Your task to perform on an android device: toggle translation in the chrome app Image 0: 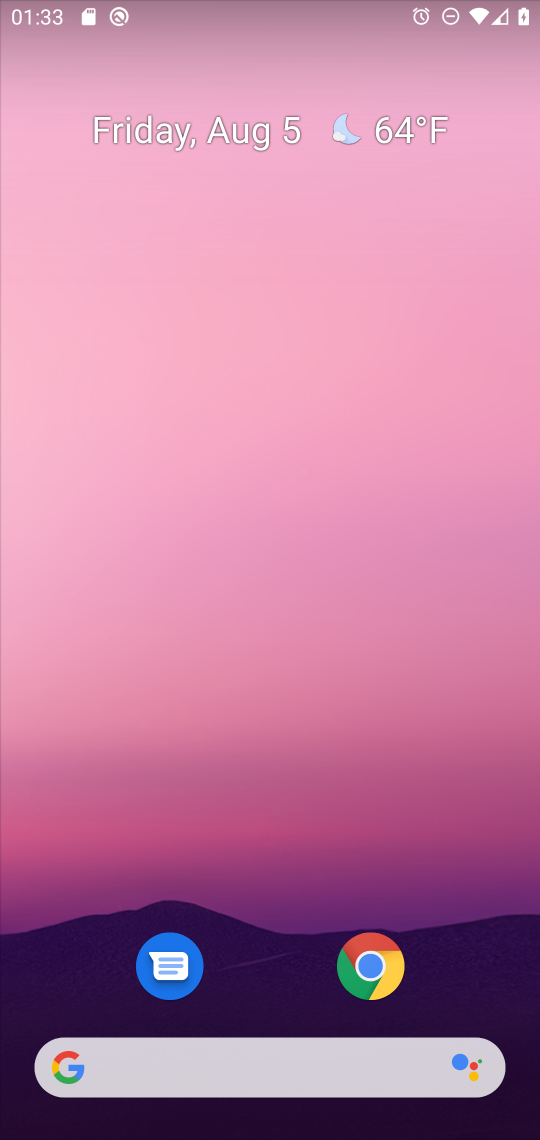
Step 0: click (358, 965)
Your task to perform on an android device: toggle translation in the chrome app Image 1: 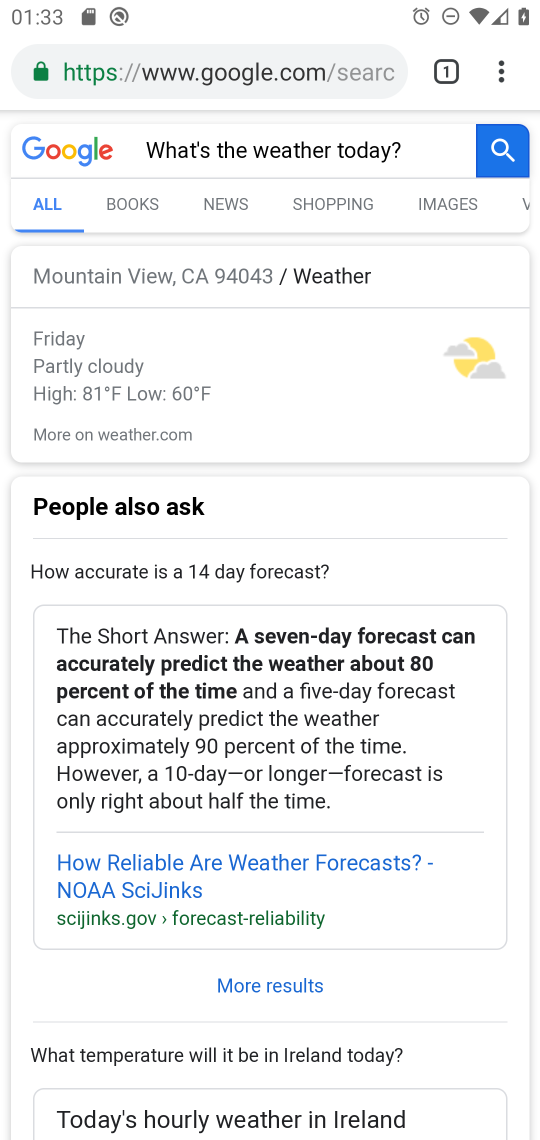
Step 1: click (499, 68)
Your task to perform on an android device: toggle translation in the chrome app Image 2: 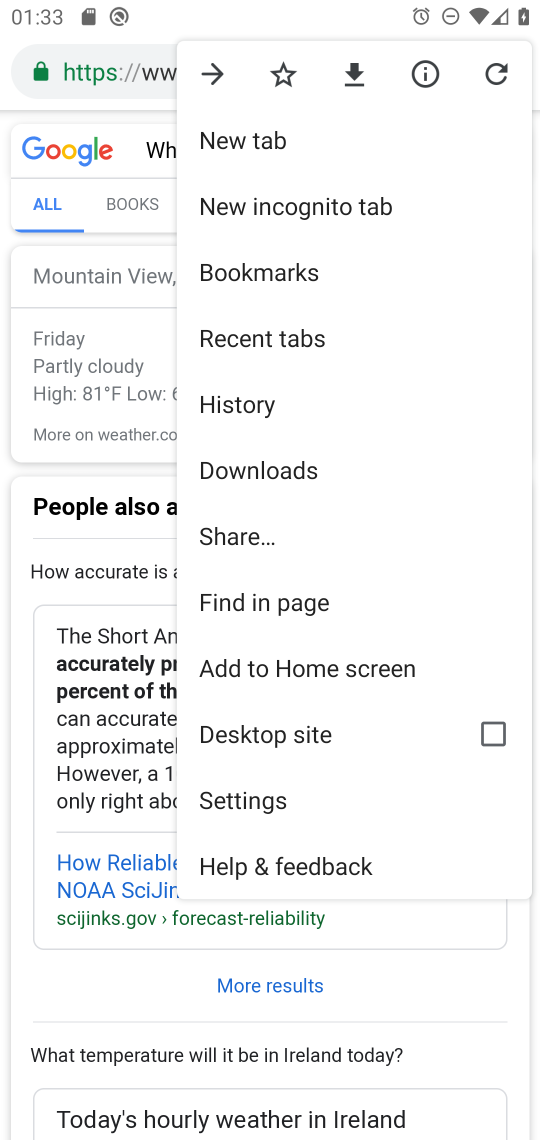
Step 2: click (266, 798)
Your task to perform on an android device: toggle translation in the chrome app Image 3: 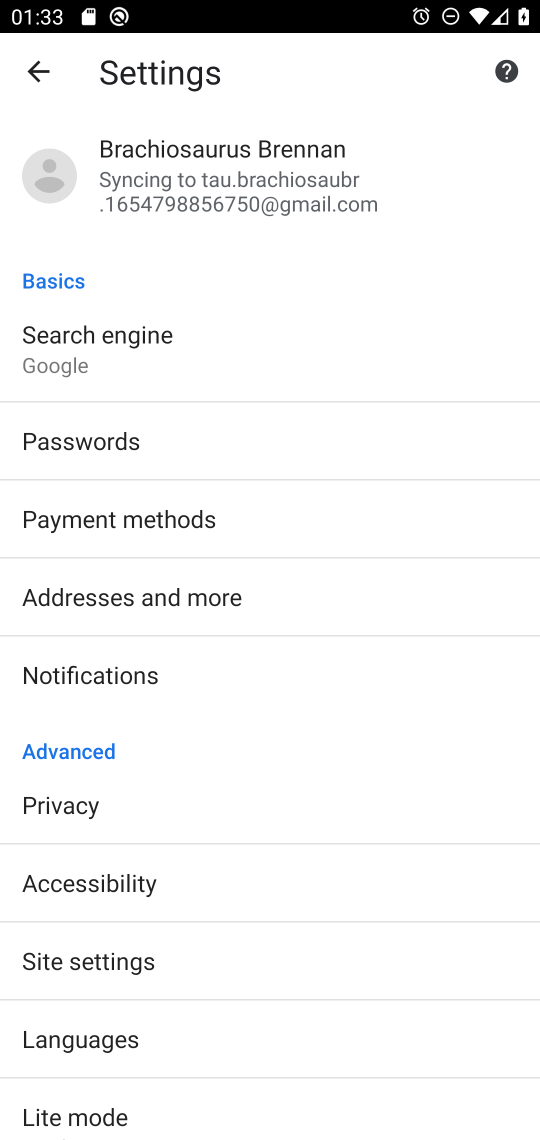
Step 3: click (238, 1029)
Your task to perform on an android device: toggle translation in the chrome app Image 4: 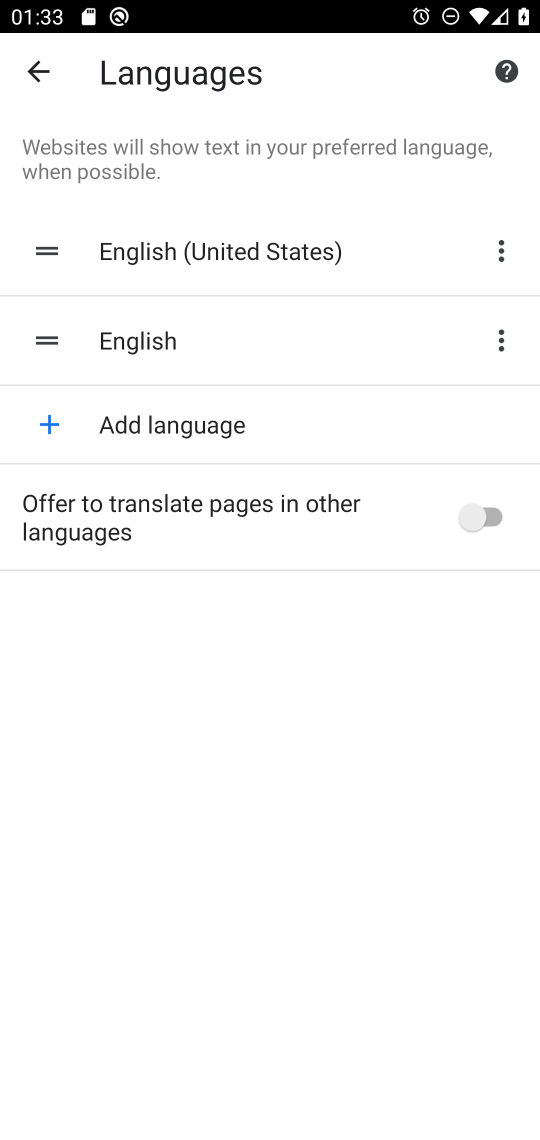
Step 4: click (485, 504)
Your task to perform on an android device: toggle translation in the chrome app Image 5: 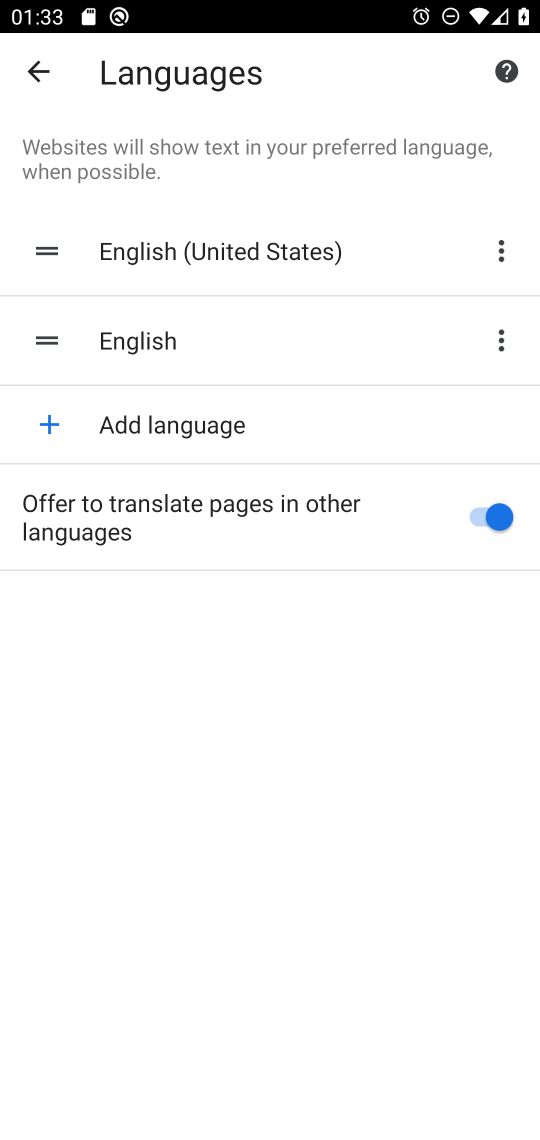
Step 5: task complete